Your task to perform on an android device: What's on my calendar tomorrow? Image 0: 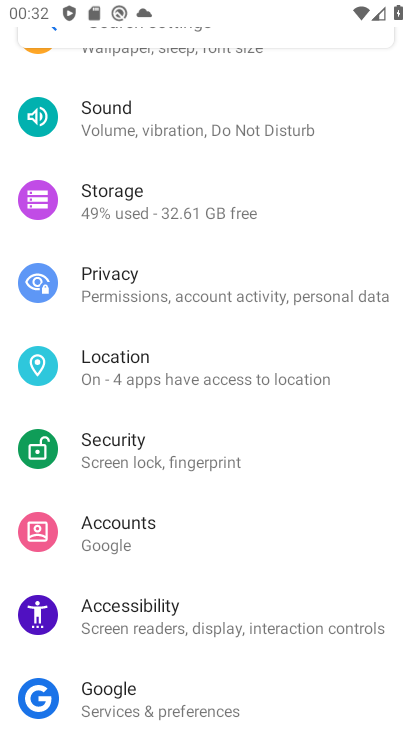
Step 0: press home button
Your task to perform on an android device: What's on my calendar tomorrow? Image 1: 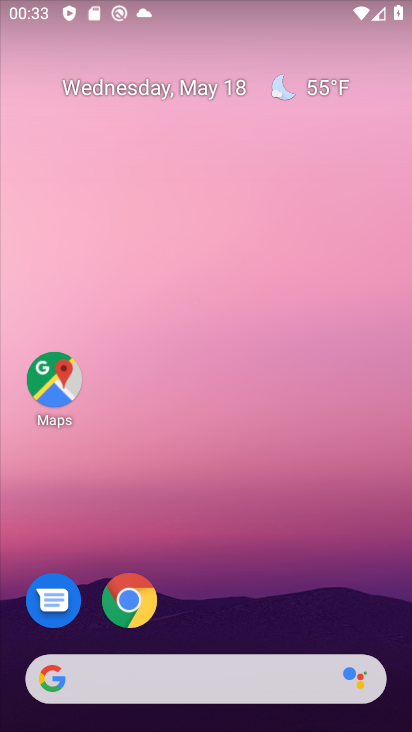
Step 1: drag from (158, 673) to (213, 189)
Your task to perform on an android device: What's on my calendar tomorrow? Image 2: 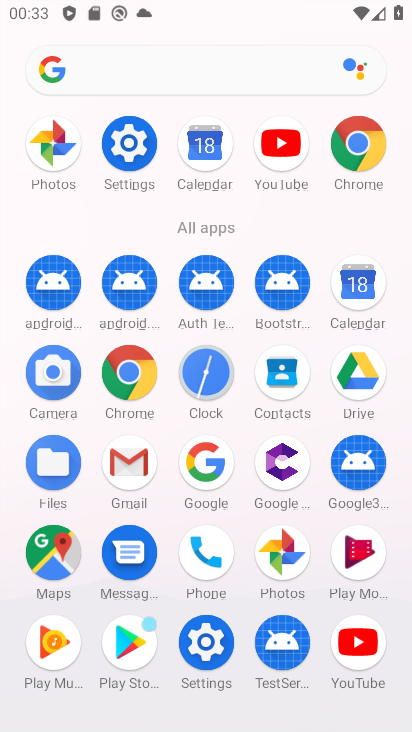
Step 2: click (352, 308)
Your task to perform on an android device: What's on my calendar tomorrow? Image 3: 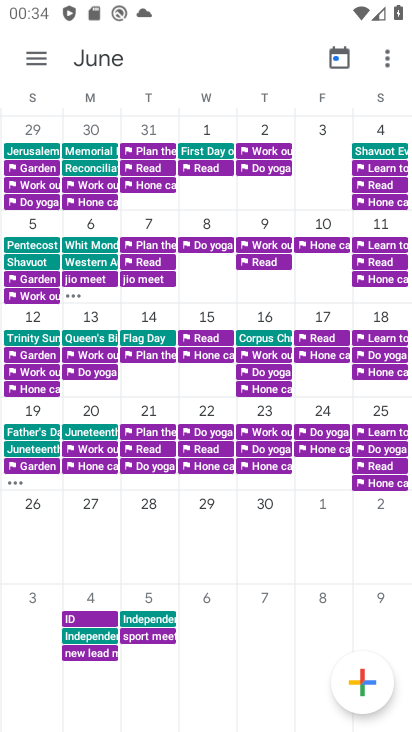
Step 3: click (32, 64)
Your task to perform on an android device: What's on my calendar tomorrow? Image 4: 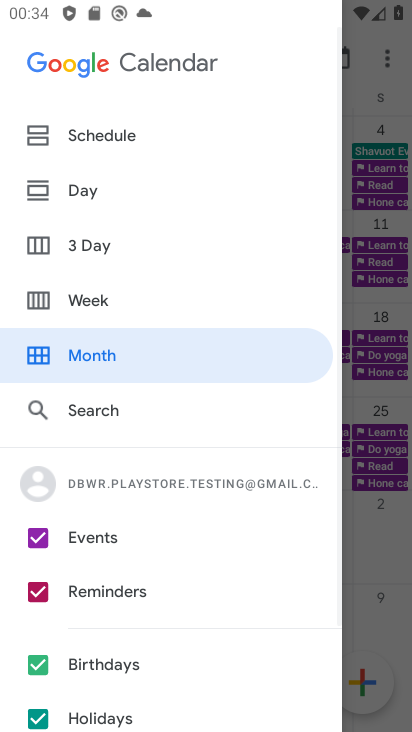
Step 4: click (98, 126)
Your task to perform on an android device: What's on my calendar tomorrow? Image 5: 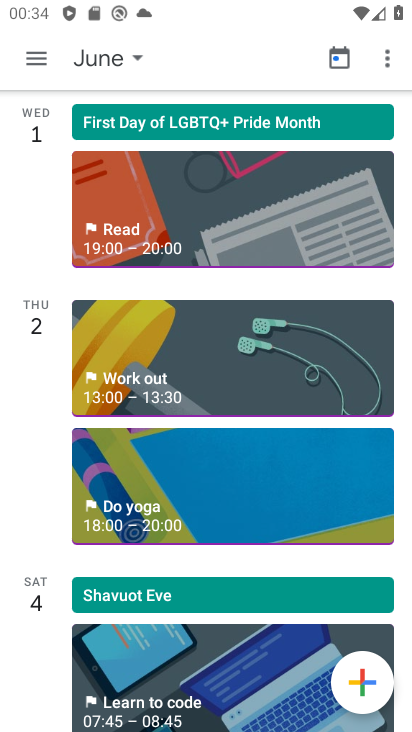
Step 5: task complete